Your task to perform on an android device: Is it going to rain this weekend? Image 0: 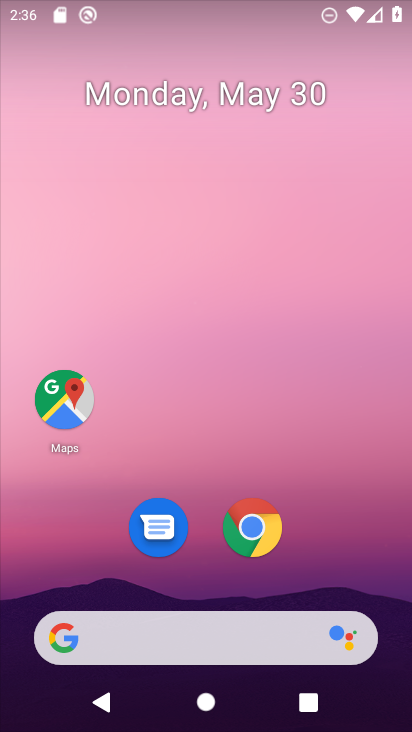
Step 0: drag from (14, 250) to (403, 476)
Your task to perform on an android device: Is it going to rain this weekend? Image 1: 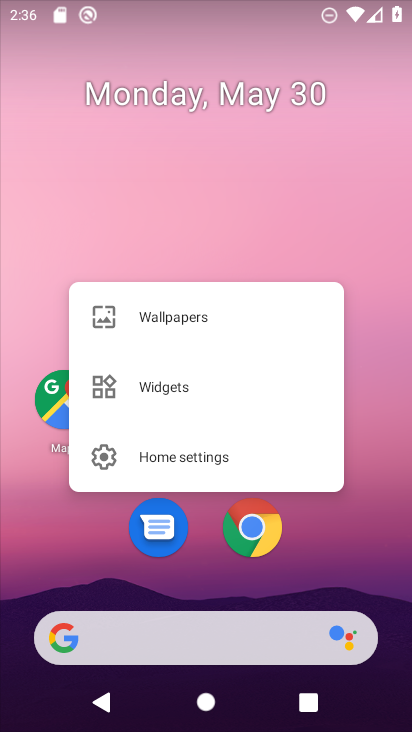
Step 1: drag from (37, 188) to (391, 432)
Your task to perform on an android device: Is it going to rain this weekend? Image 2: 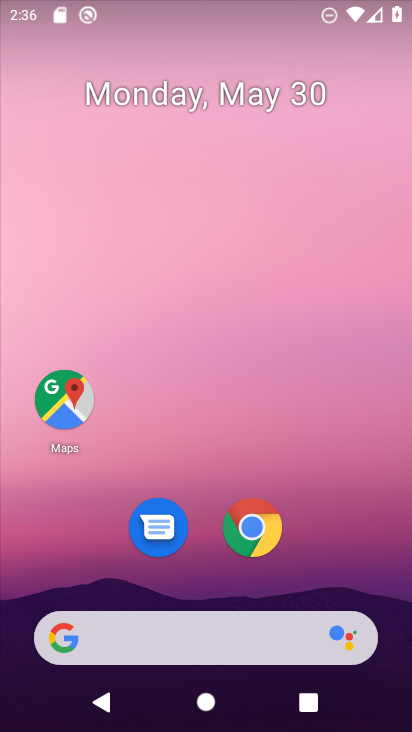
Step 2: drag from (41, 259) to (353, 472)
Your task to perform on an android device: Is it going to rain this weekend? Image 3: 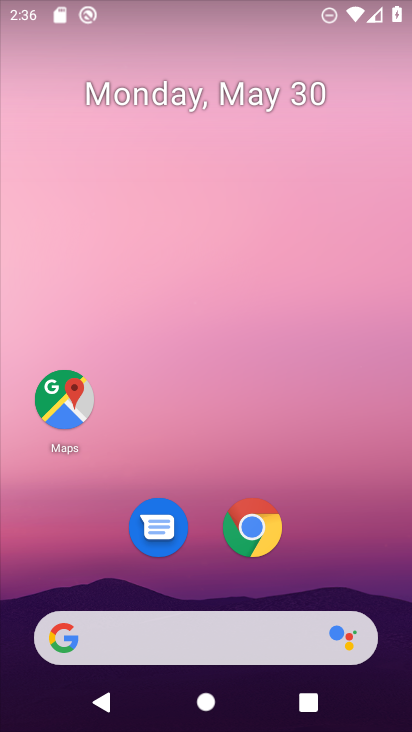
Step 3: click (239, 461)
Your task to perform on an android device: Is it going to rain this weekend? Image 4: 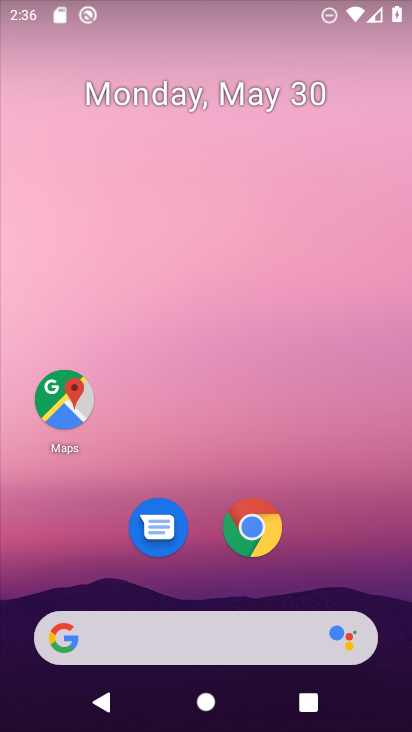
Step 4: drag from (139, 372) to (268, 493)
Your task to perform on an android device: Is it going to rain this weekend? Image 5: 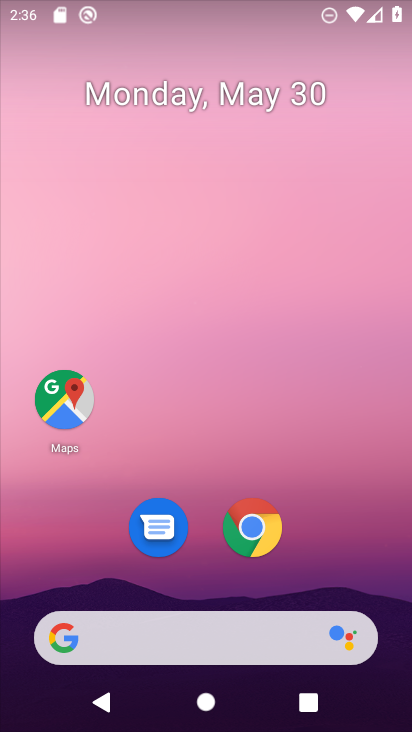
Step 5: drag from (31, 274) to (187, 543)
Your task to perform on an android device: Is it going to rain this weekend? Image 6: 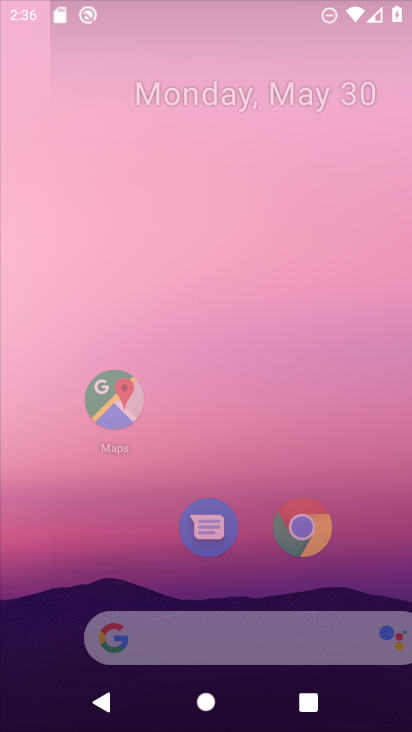
Step 6: drag from (14, 306) to (203, 418)
Your task to perform on an android device: Is it going to rain this weekend? Image 7: 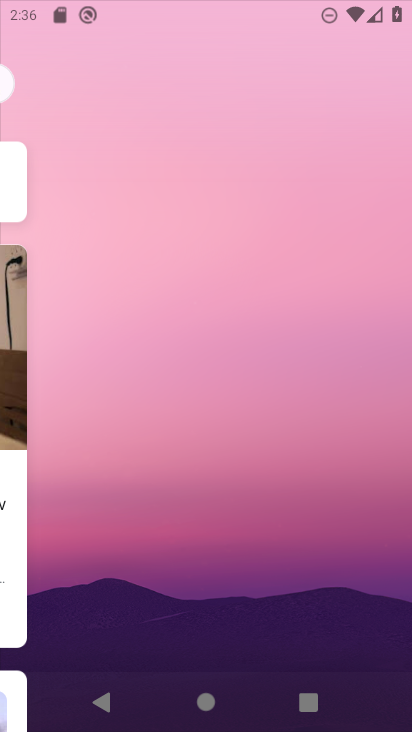
Step 7: drag from (311, 382) to (382, 379)
Your task to perform on an android device: Is it going to rain this weekend? Image 8: 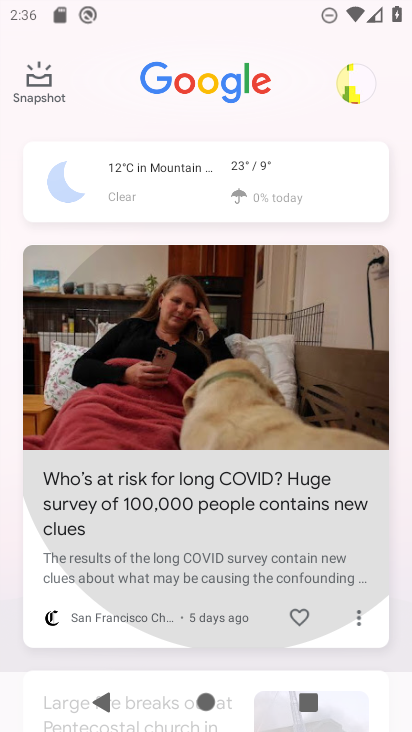
Step 8: click (394, 402)
Your task to perform on an android device: Is it going to rain this weekend? Image 9: 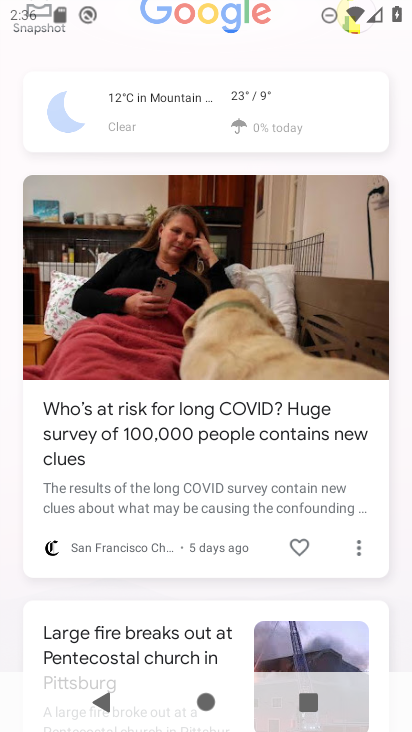
Step 9: drag from (200, 307) to (377, 366)
Your task to perform on an android device: Is it going to rain this weekend? Image 10: 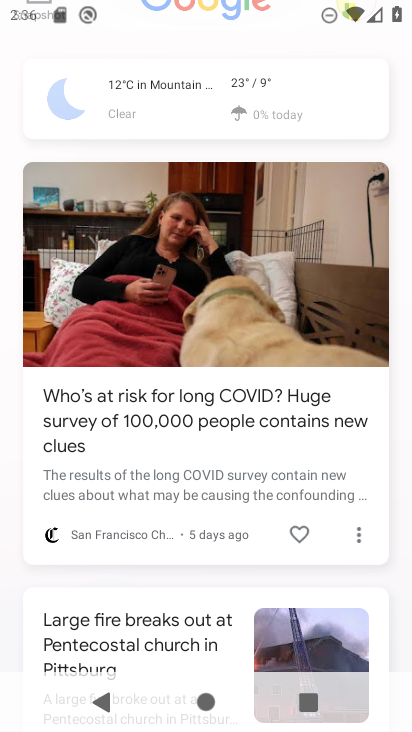
Step 10: click (181, 118)
Your task to perform on an android device: Is it going to rain this weekend? Image 11: 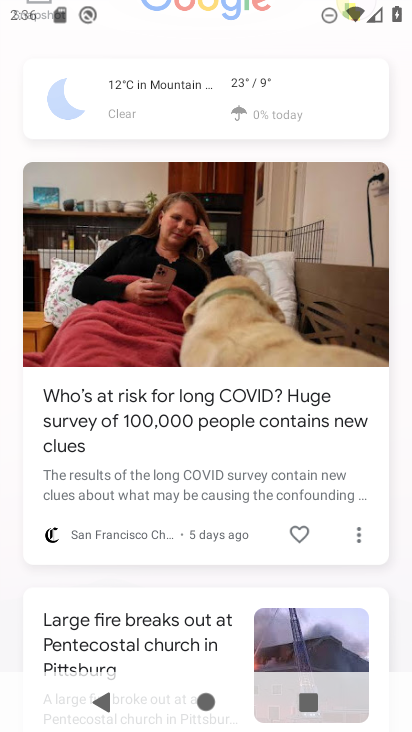
Step 11: click (186, 113)
Your task to perform on an android device: Is it going to rain this weekend? Image 12: 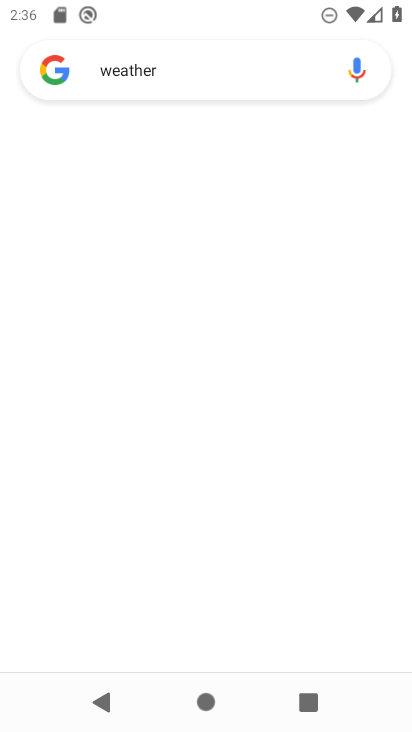
Step 12: click (193, 109)
Your task to perform on an android device: Is it going to rain this weekend? Image 13: 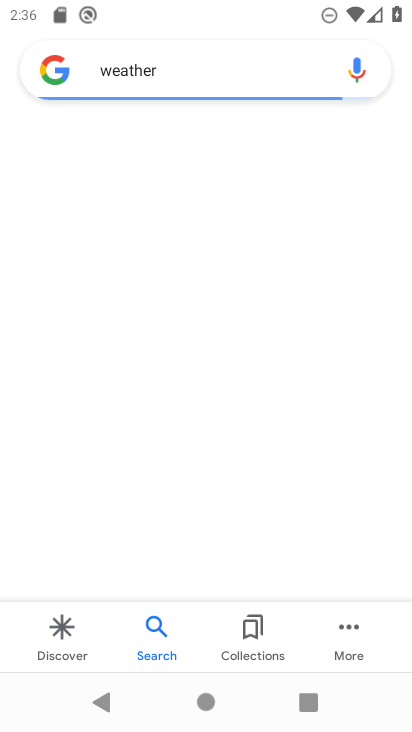
Step 13: task complete